Your task to perform on an android device: Open Maps and search for coffee Image 0: 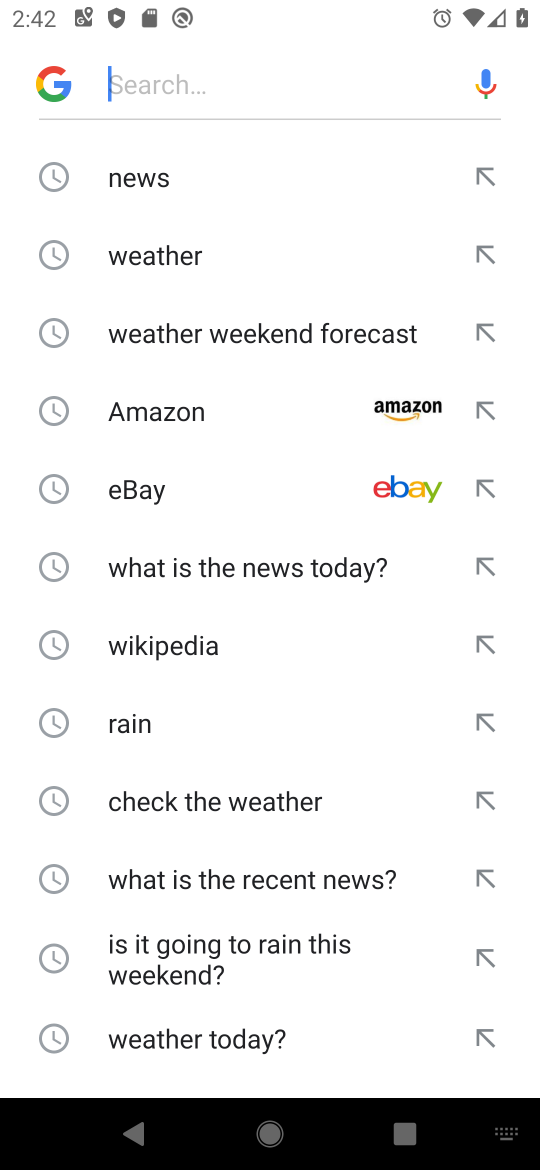
Step 0: press home button
Your task to perform on an android device: Open Maps and search for coffee Image 1: 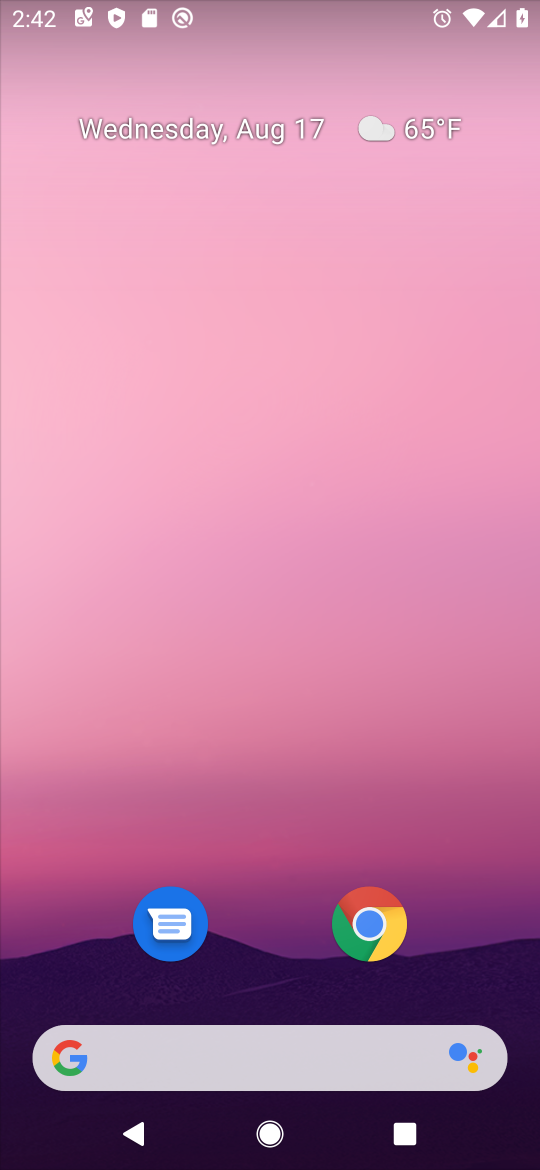
Step 1: drag from (241, 1046) to (196, 311)
Your task to perform on an android device: Open Maps and search for coffee Image 2: 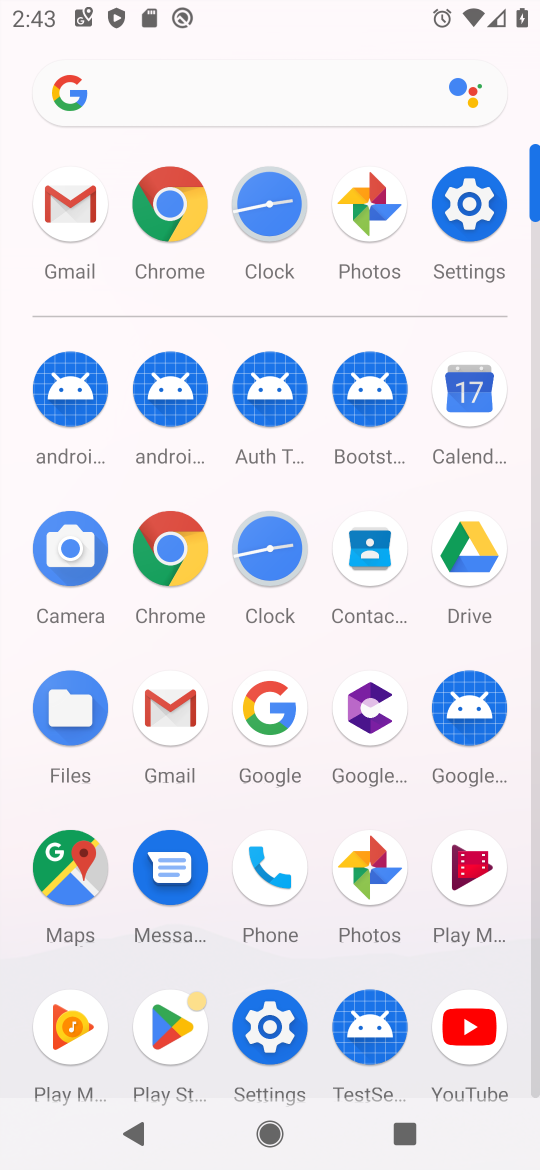
Step 2: click (70, 870)
Your task to perform on an android device: Open Maps and search for coffee Image 3: 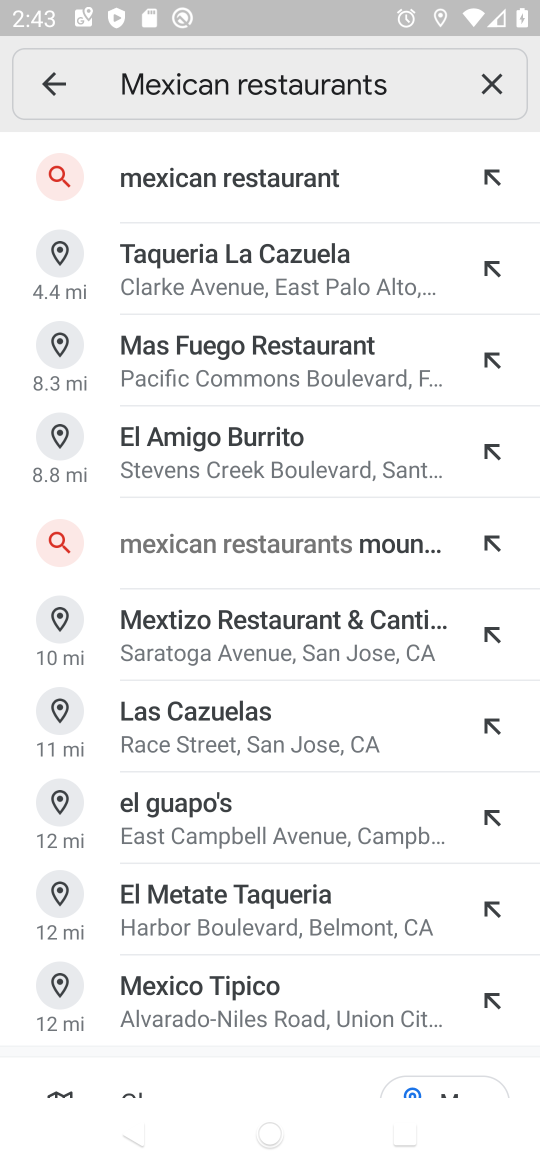
Step 3: click (497, 87)
Your task to perform on an android device: Open Maps and search for coffee Image 4: 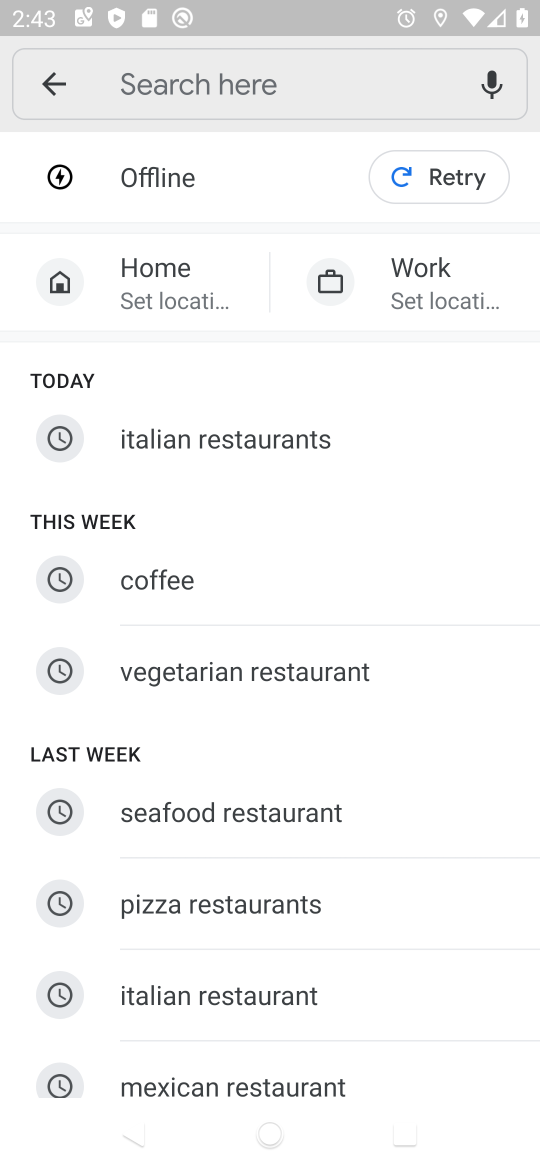
Step 4: click (316, 78)
Your task to perform on an android device: Open Maps and search for coffee Image 5: 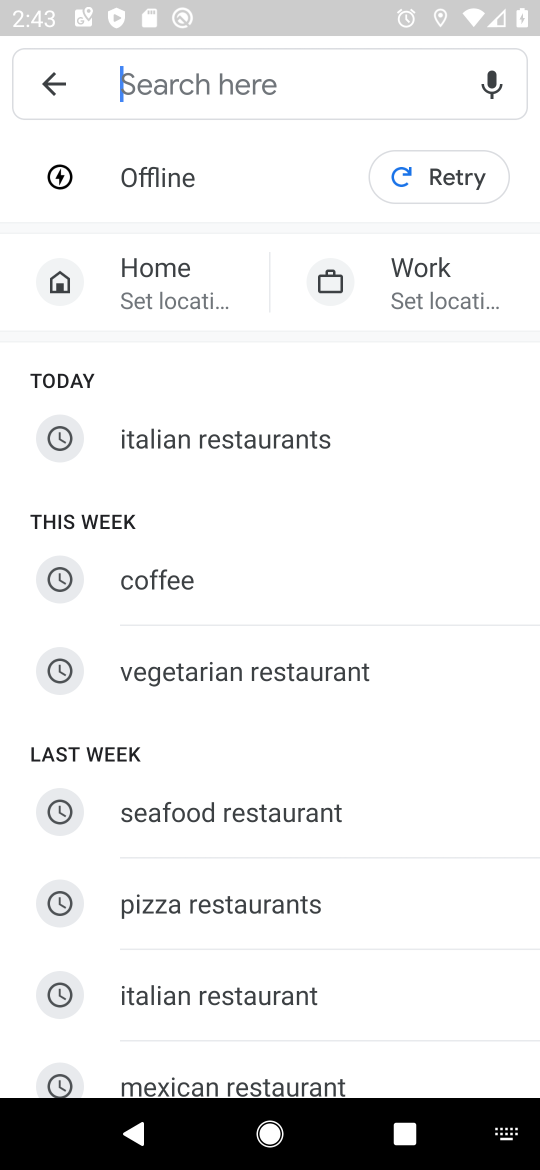
Step 5: type "coffee"
Your task to perform on an android device: Open Maps and search for coffee Image 6: 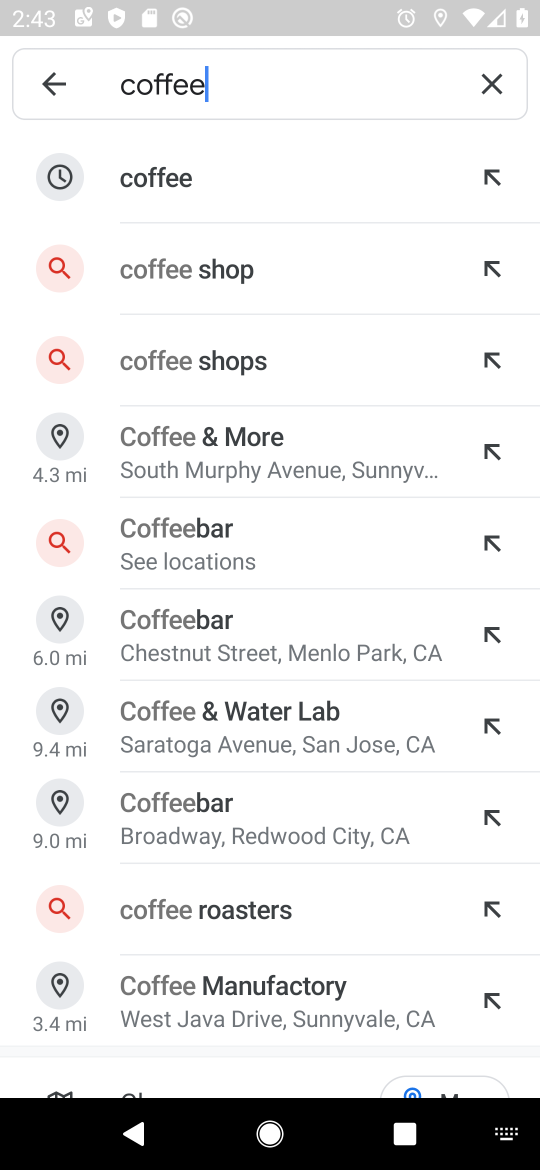
Step 6: click (168, 170)
Your task to perform on an android device: Open Maps and search for coffee Image 7: 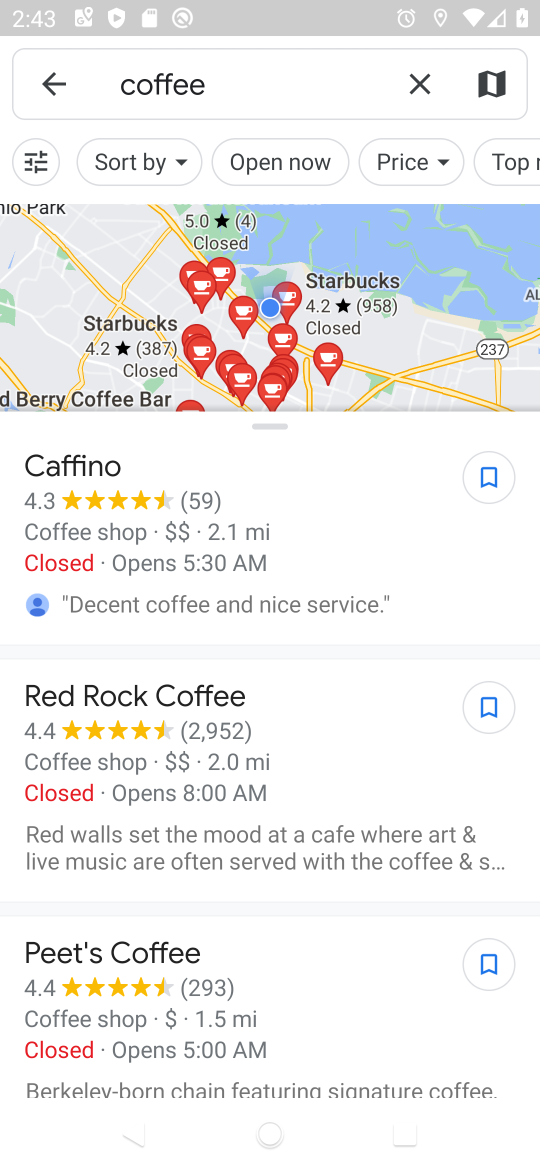
Step 7: task complete